Your task to perform on an android device: turn on data saver in the chrome app Image 0: 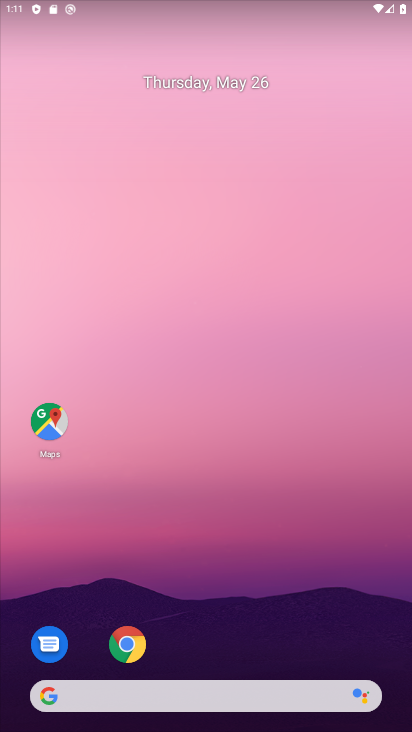
Step 0: drag from (219, 583) to (247, 246)
Your task to perform on an android device: turn on data saver in the chrome app Image 1: 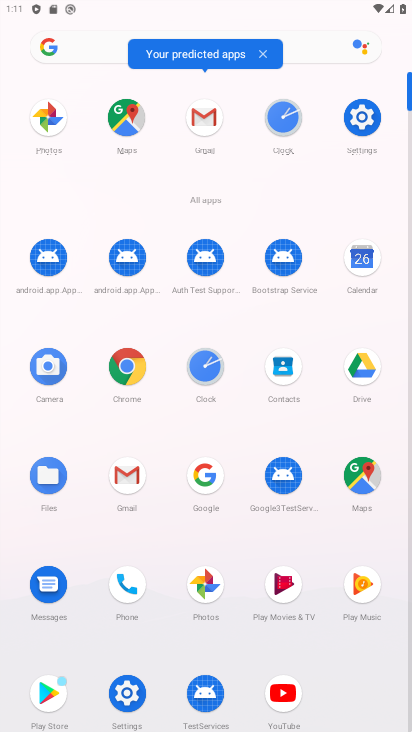
Step 1: click (130, 356)
Your task to perform on an android device: turn on data saver in the chrome app Image 2: 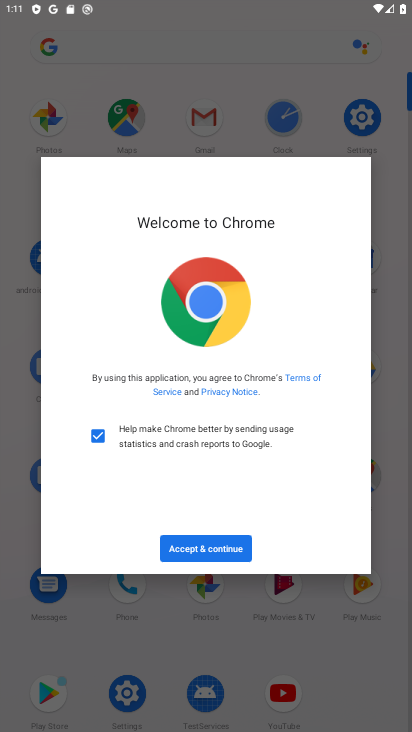
Step 2: click (201, 538)
Your task to perform on an android device: turn on data saver in the chrome app Image 3: 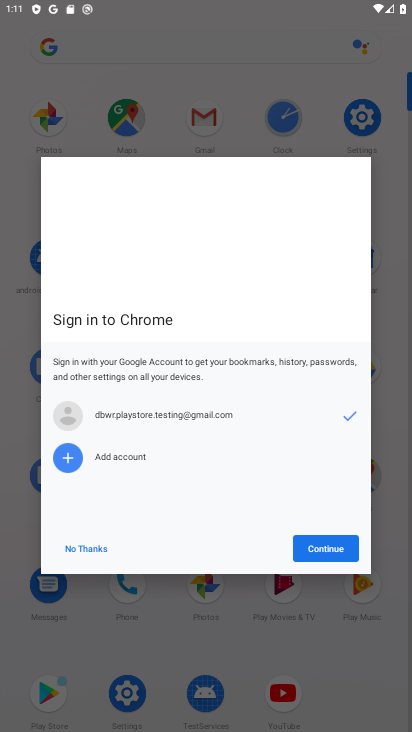
Step 3: click (324, 538)
Your task to perform on an android device: turn on data saver in the chrome app Image 4: 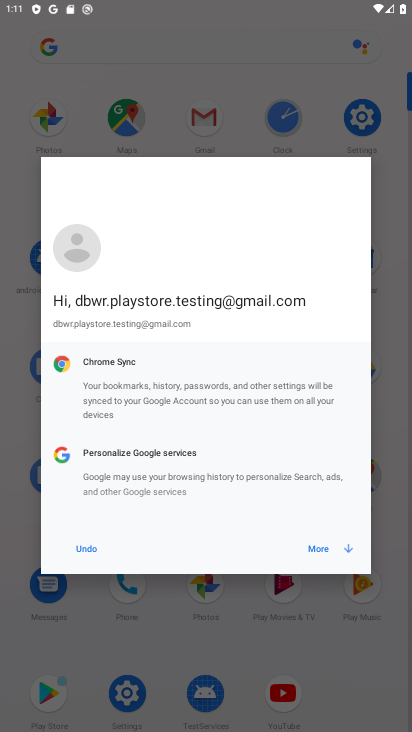
Step 4: click (318, 544)
Your task to perform on an android device: turn on data saver in the chrome app Image 5: 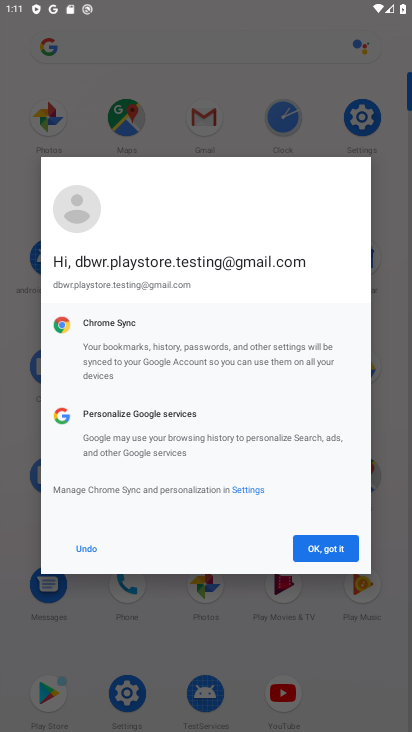
Step 5: click (318, 544)
Your task to perform on an android device: turn on data saver in the chrome app Image 6: 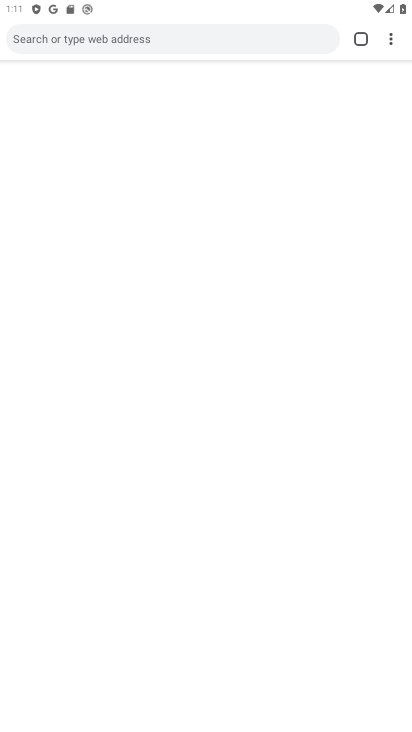
Step 6: click (334, 550)
Your task to perform on an android device: turn on data saver in the chrome app Image 7: 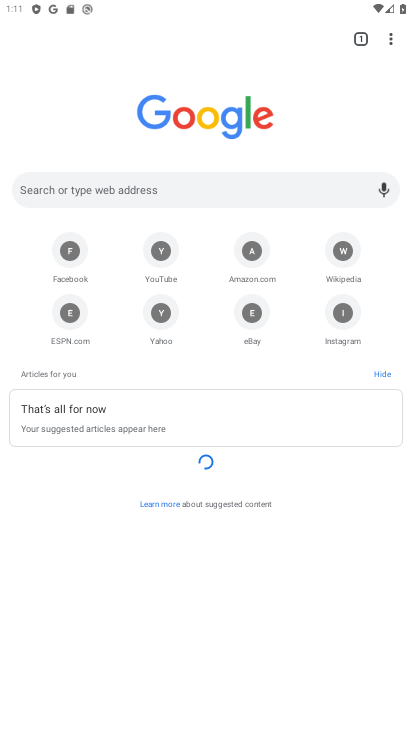
Step 7: click (402, 37)
Your task to perform on an android device: turn on data saver in the chrome app Image 8: 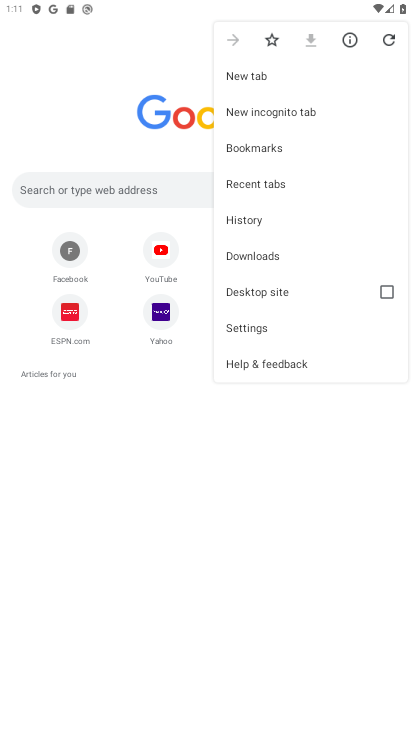
Step 8: click (262, 327)
Your task to perform on an android device: turn on data saver in the chrome app Image 9: 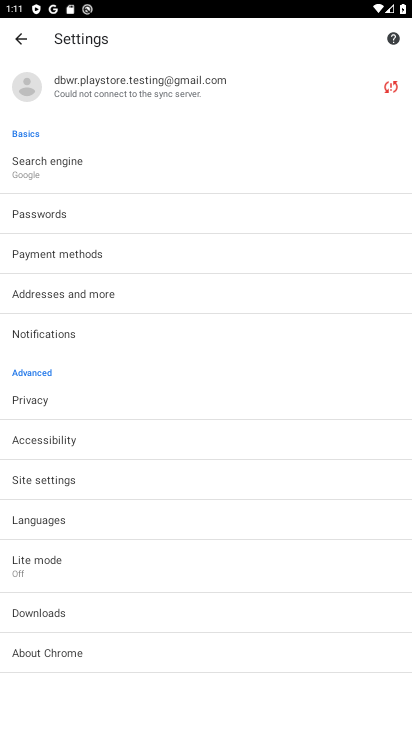
Step 9: click (69, 573)
Your task to perform on an android device: turn on data saver in the chrome app Image 10: 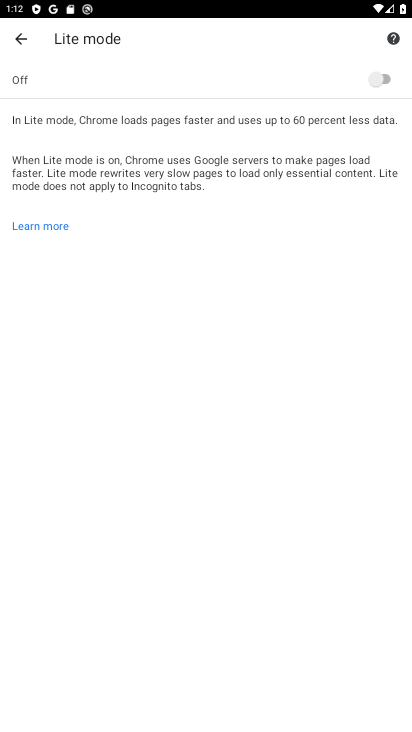
Step 10: click (389, 72)
Your task to perform on an android device: turn on data saver in the chrome app Image 11: 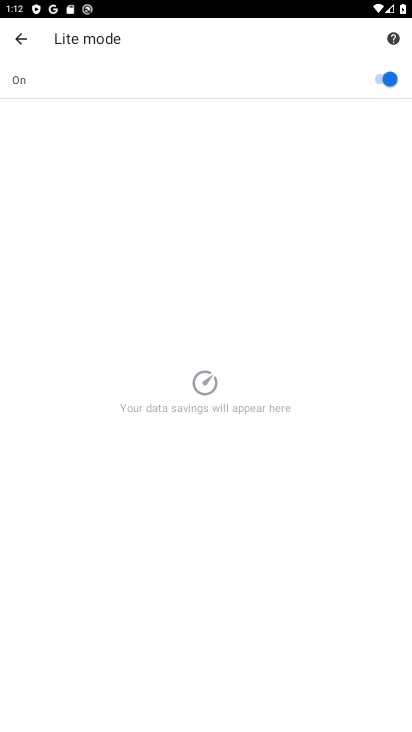
Step 11: task complete